Your task to perform on an android device: uninstall "Clock" Image 0: 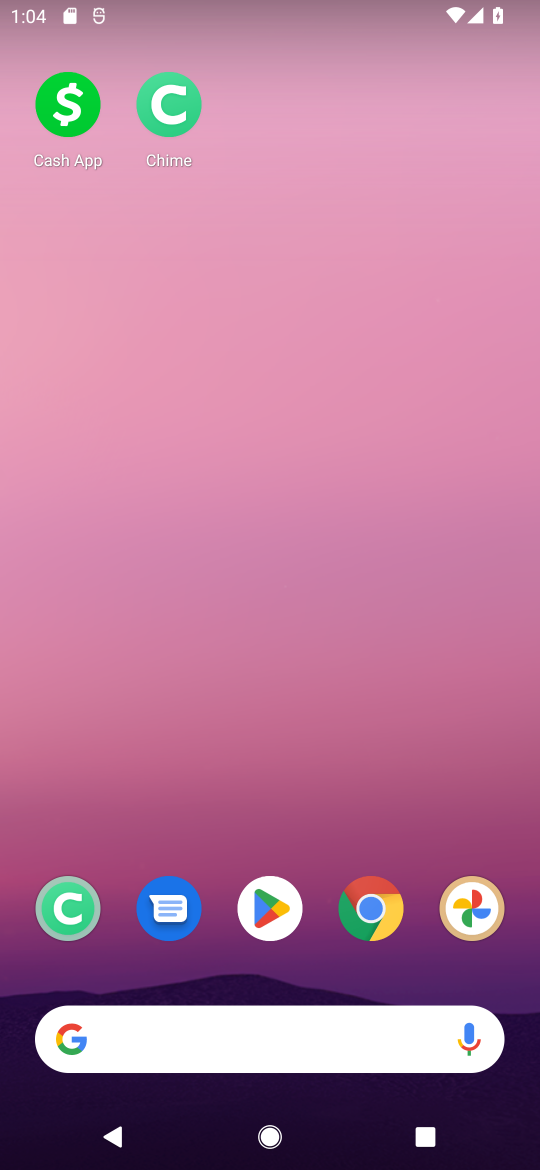
Step 0: click (274, 894)
Your task to perform on an android device: uninstall "Clock" Image 1: 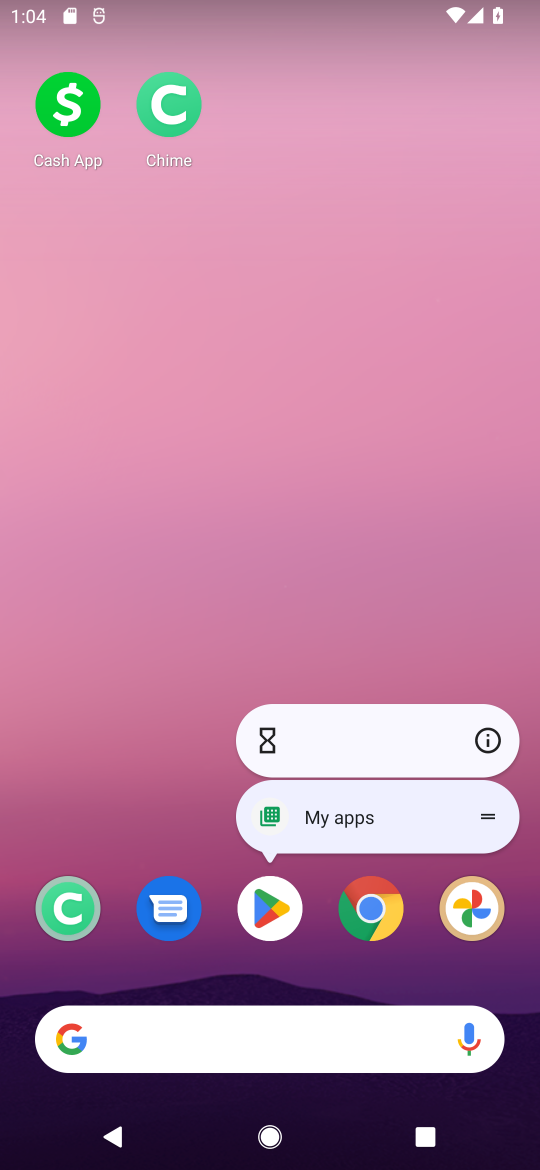
Step 1: click (268, 894)
Your task to perform on an android device: uninstall "Clock" Image 2: 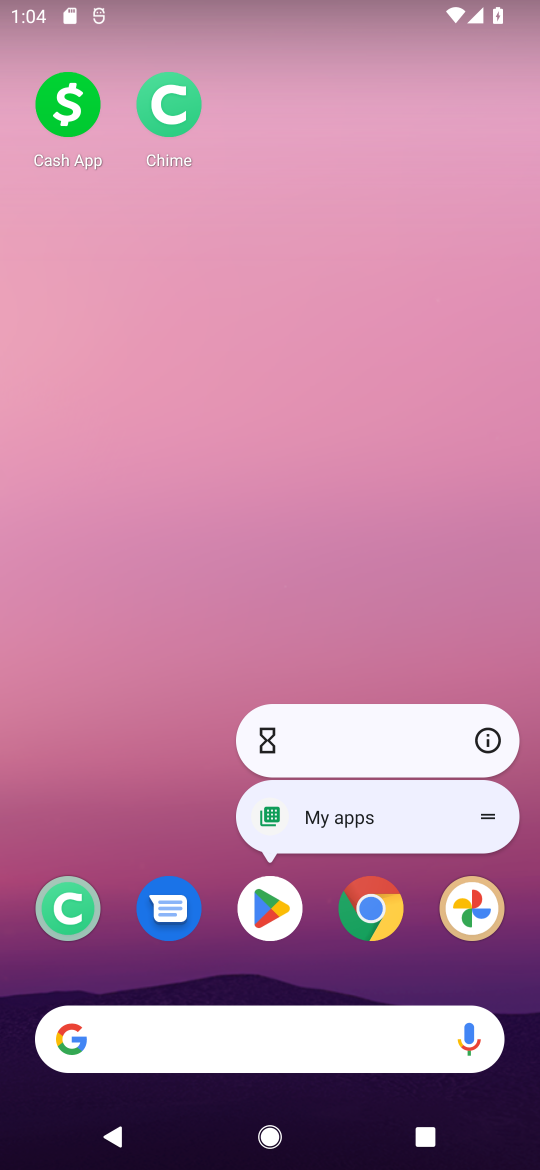
Step 2: click (268, 935)
Your task to perform on an android device: uninstall "Clock" Image 3: 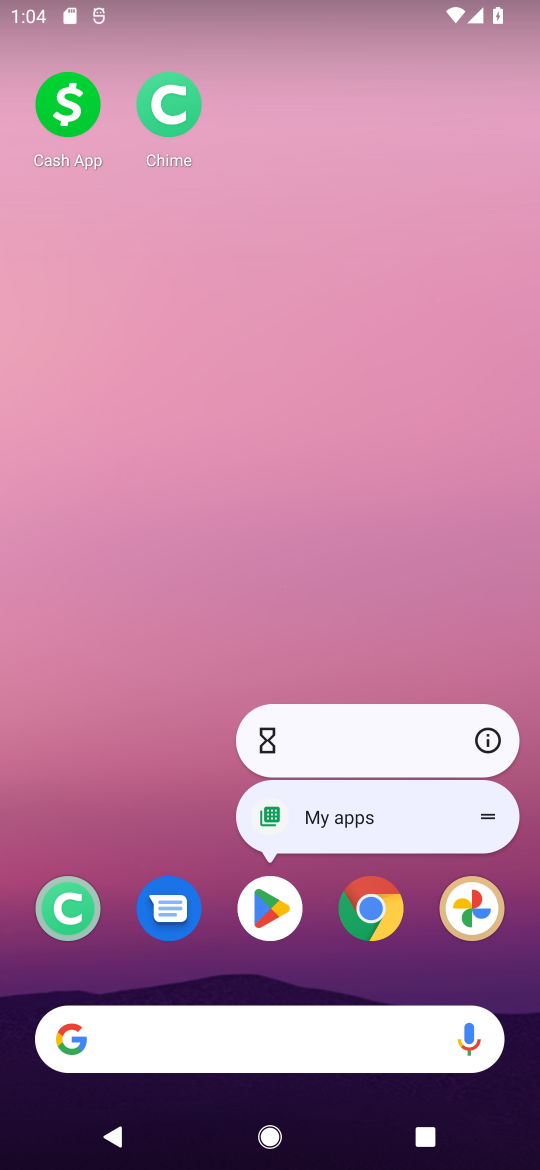
Step 3: click (252, 927)
Your task to perform on an android device: uninstall "Clock" Image 4: 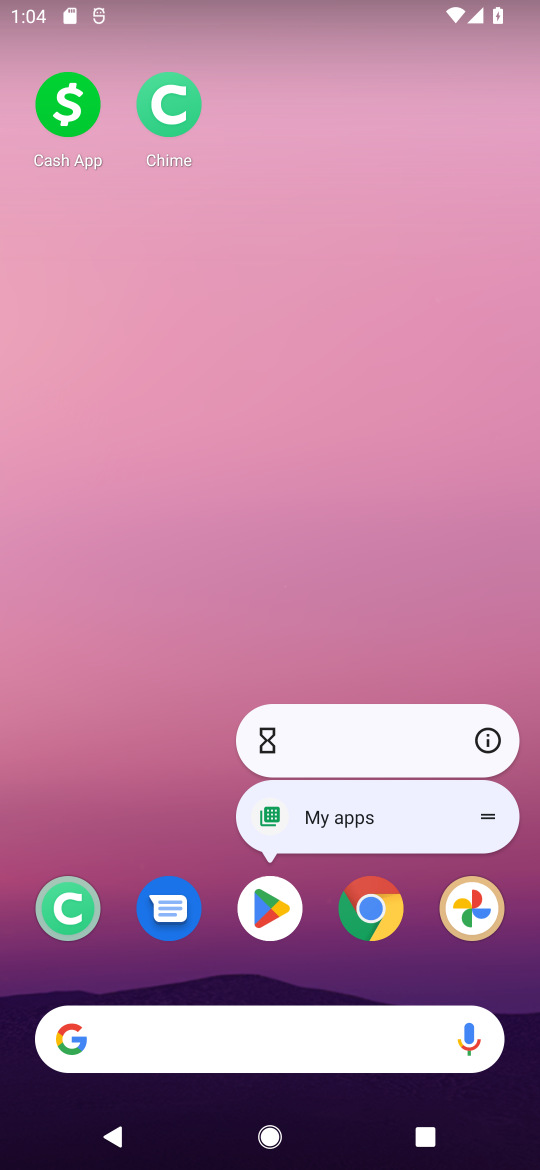
Step 4: click (282, 909)
Your task to perform on an android device: uninstall "Clock" Image 5: 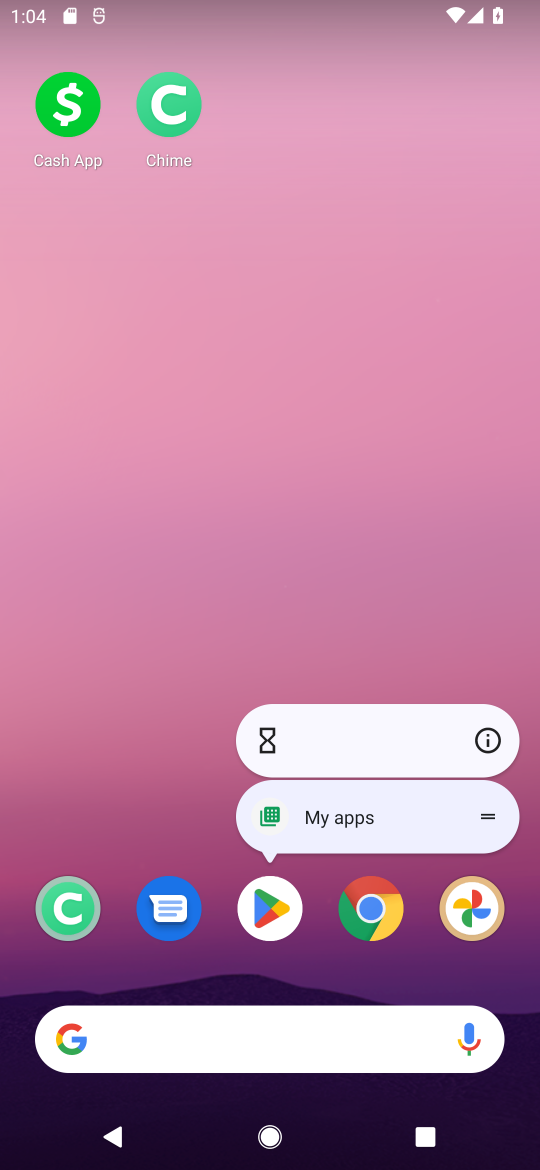
Step 5: click (271, 912)
Your task to perform on an android device: uninstall "Clock" Image 6: 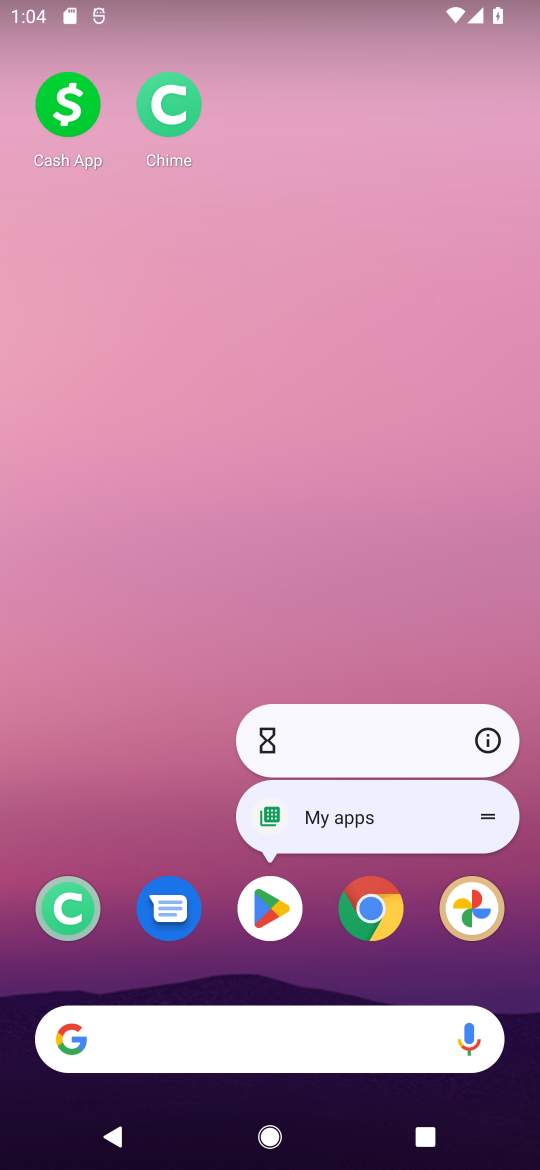
Step 6: click (271, 912)
Your task to perform on an android device: uninstall "Clock" Image 7: 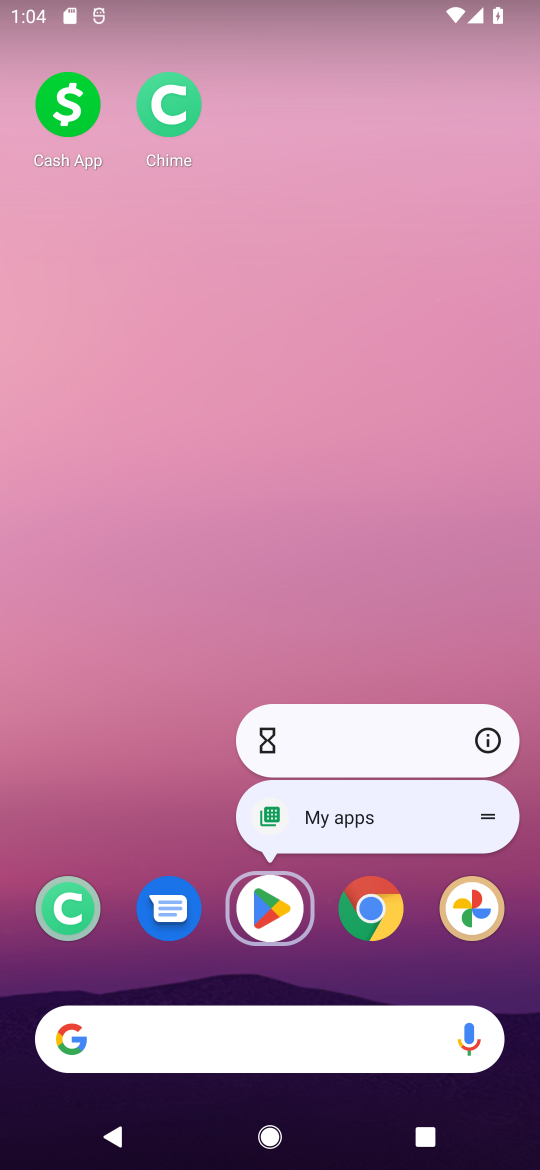
Step 7: click (271, 912)
Your task to perform on an android device: uninstall "Clock" Image 8: 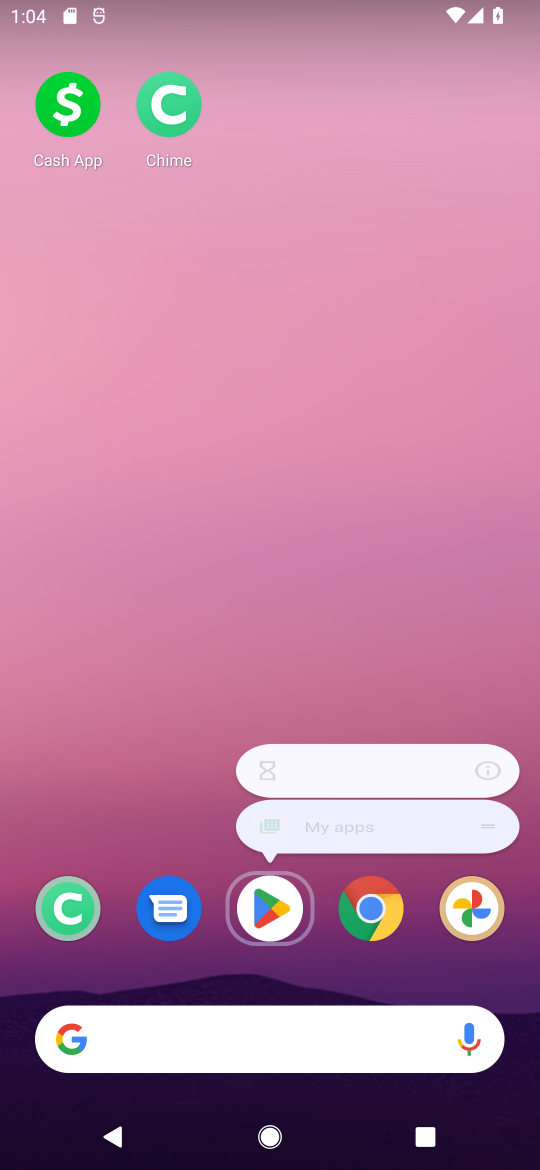
Step 8: click (271, 912)
Your task to perform on an android device: uninstall "Clock" Image 9: 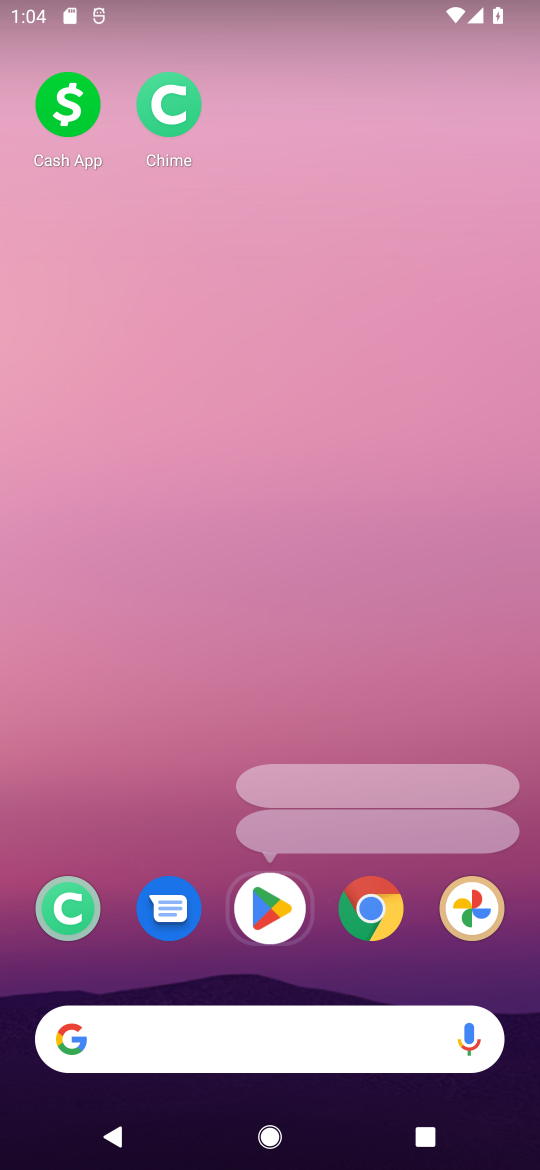
Step 9: click (271, 912)
Your task to perform on an android device: uninstall "Clock" Image 10: 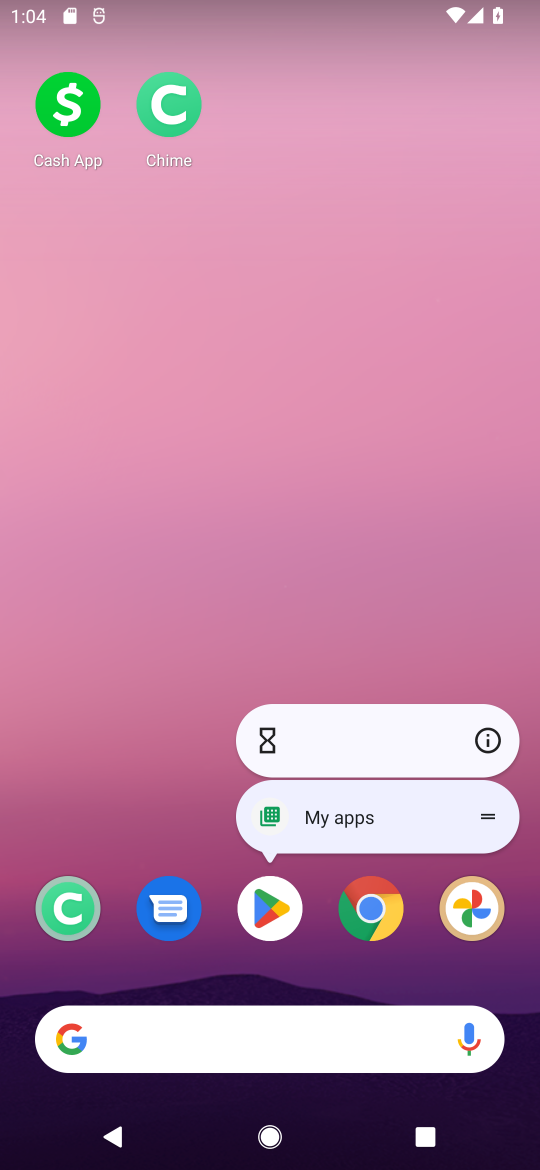
Step 10: click (271, 912)
Your task to perform on an android device: uninstall "Clock" Image 11: 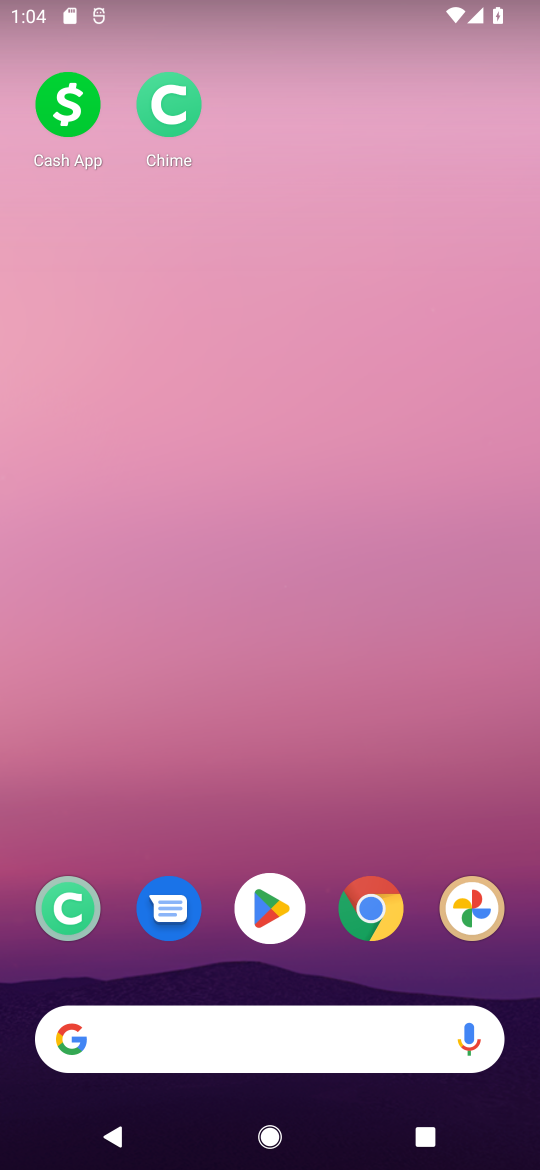
Step 11: click (271, 912)
Your task to perform on an android device: uninstall "Clock" Image 12: 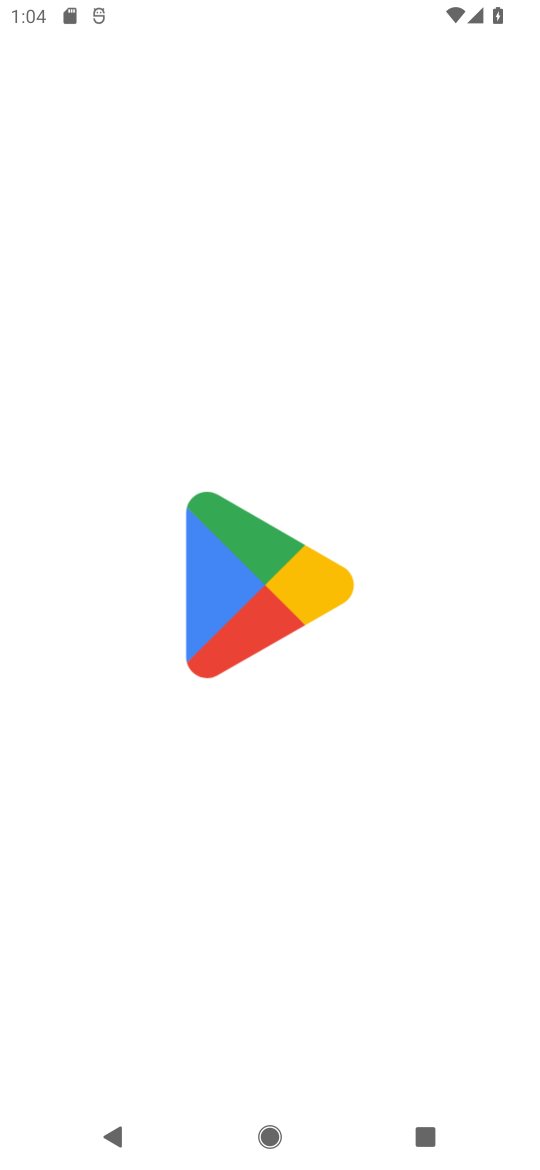
Step 12: click (271, 912)
Your task to perform on an android device: uninstall "Clock" Image 13: 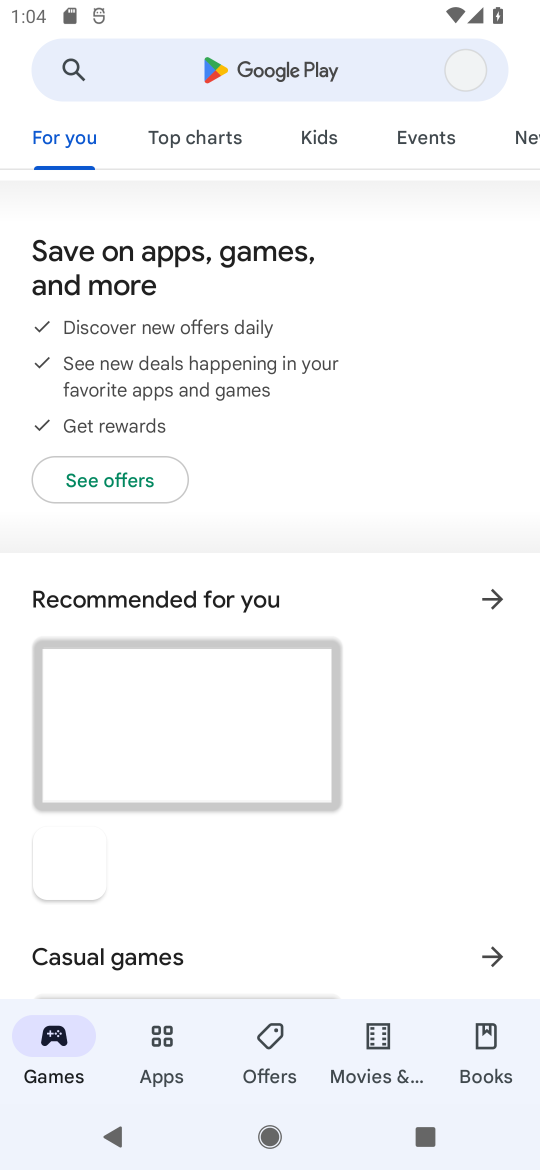
Step 13: click (201, 65)
Your task to perform on an android device: uninstall "Clock" Image 14: 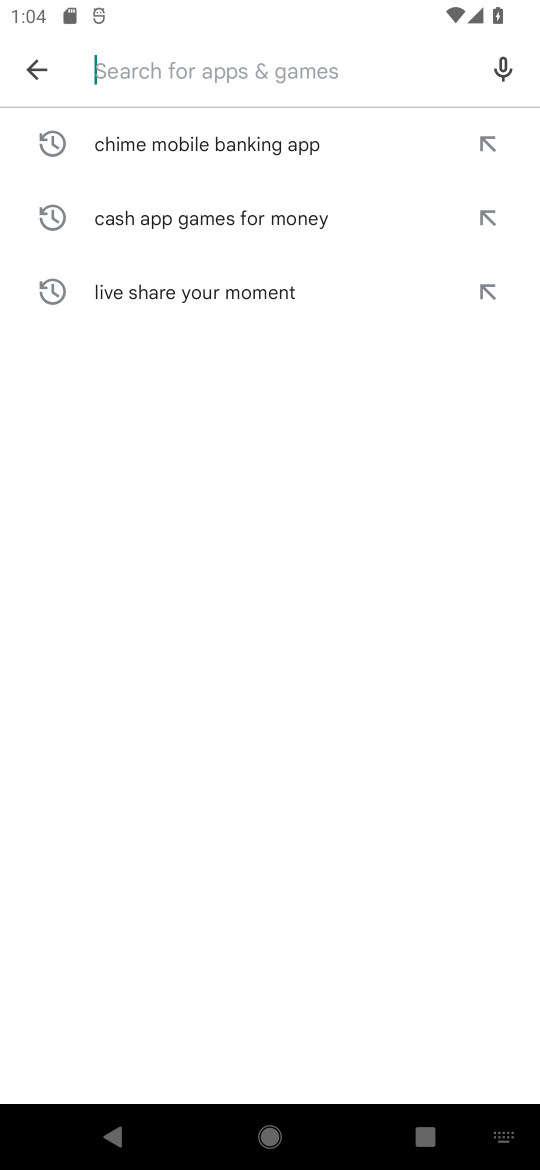
Step 14: type "clock"
Your task to perform on an android device: uninstall "Clock" Image 15: 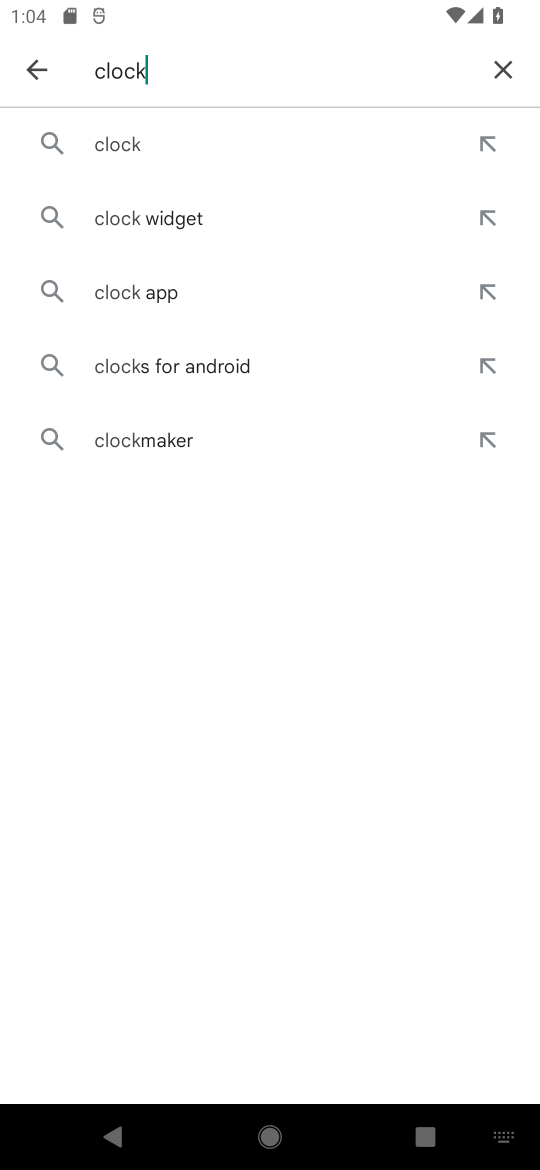
Step 15: click (221, 129)
Your task to perform on an android device: uninstall "Clock" Image 16: 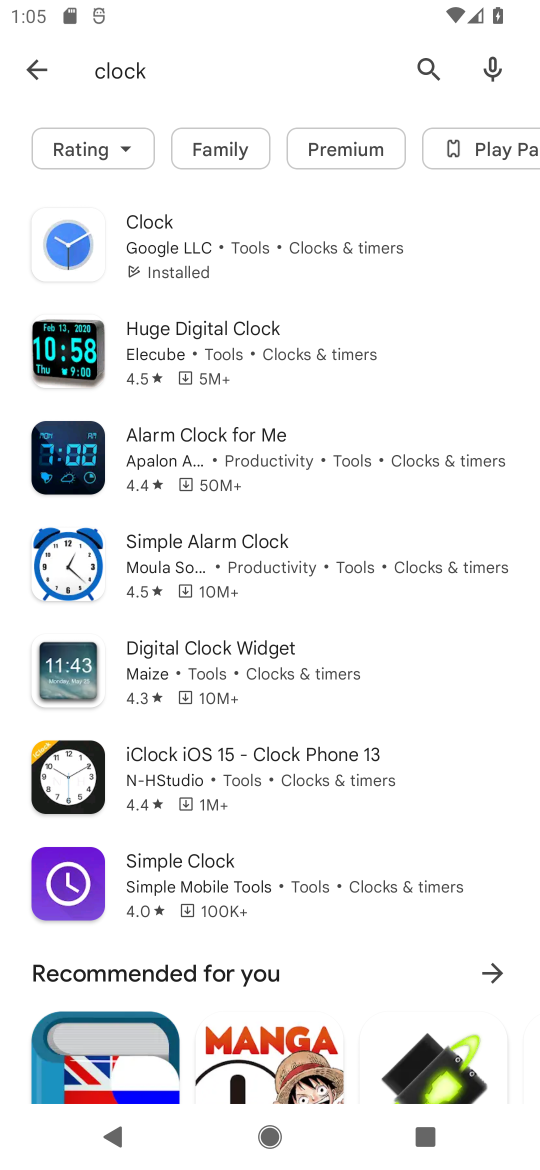
Step 16: click (256, 242)
Your task to perform on an android device: uninstall "Clock" Image 17: 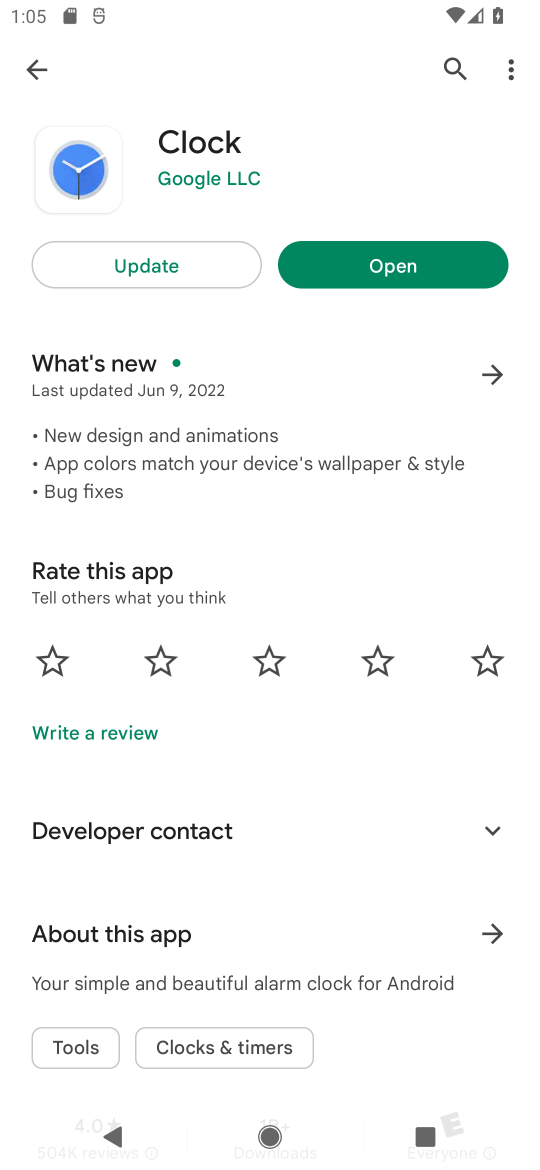
Step 17: click (139, 274)
Your task to perform on an android device: uninstall "Clock" Image 18: 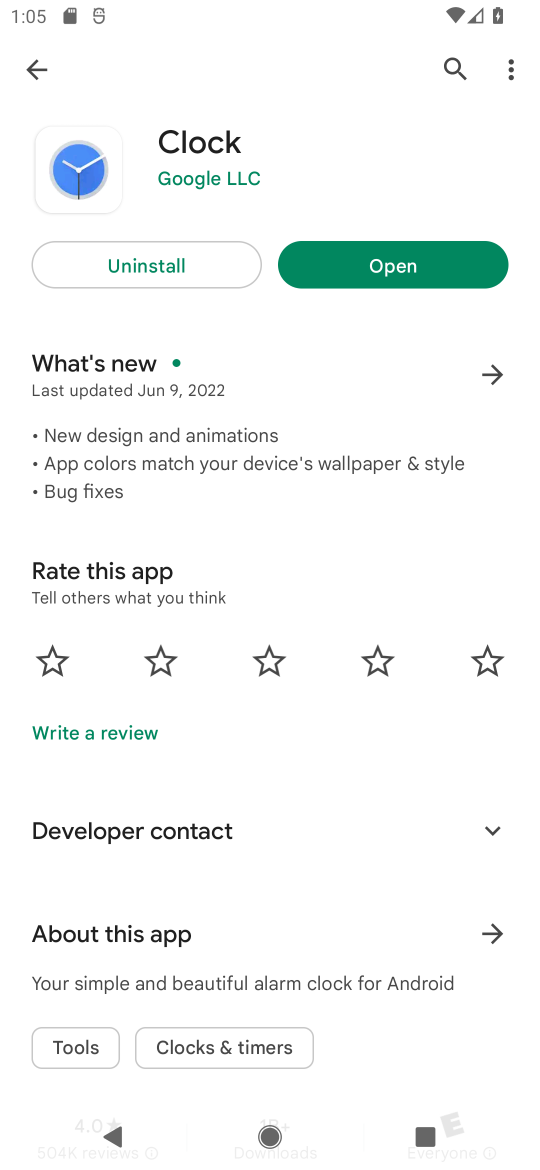
Step 18: click (139, 274)
Your task to perform on an android device: uninstall "Clock" Image 19: 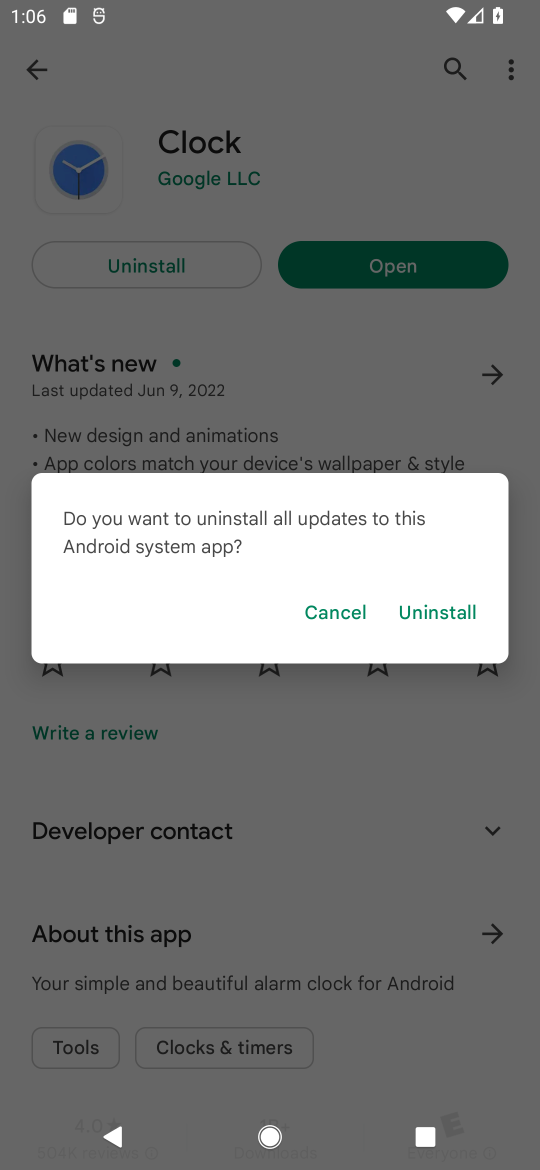
Step 19: click (449, 613)
Your task to perform on an android device: uninstall "Clock" Image 20: 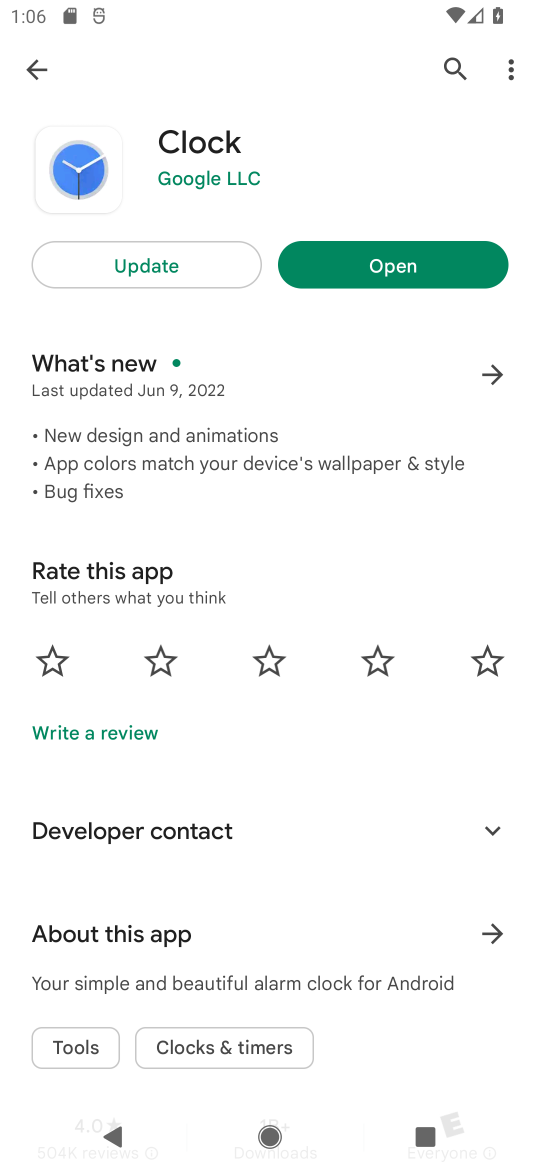
Step 20: task complete